Your task to perform on an android device: Open internet settings Image 0: 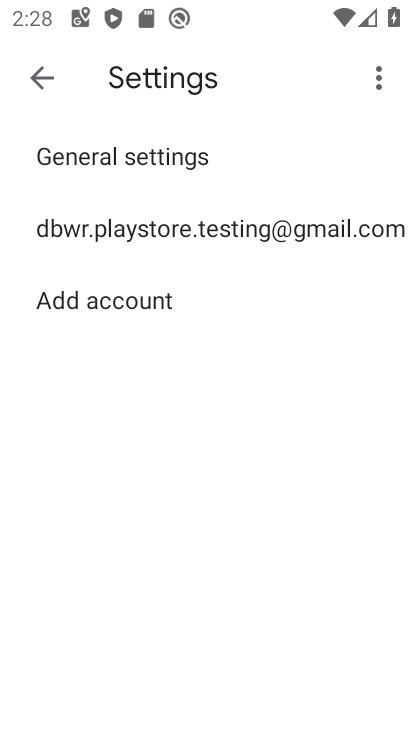
Step 0: click (100, 204)
Your task to perform on an android device: Open internet settings Image 1: 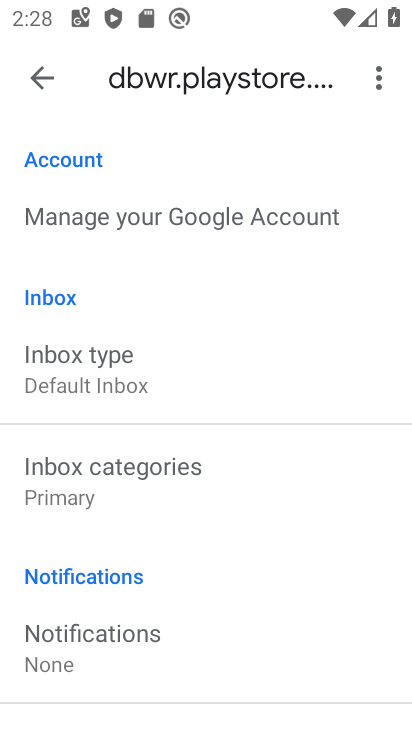
Step 1: press home button
Your task to perform on an android device: Open internet settings Image 2: 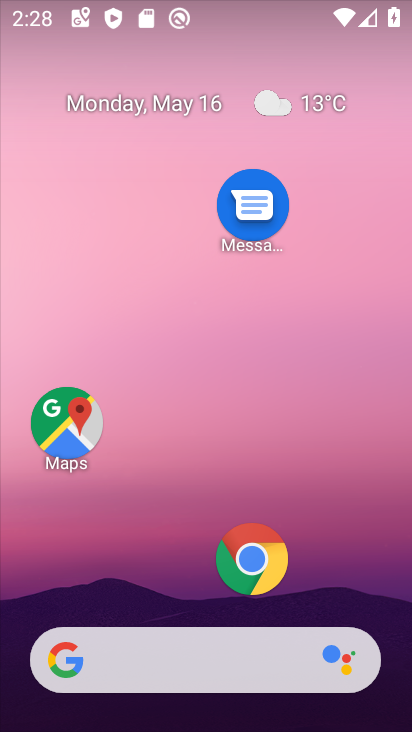
Step 2: drag from (137, 564) to (165, 150)
Your task to perform on an android device: Open internet settings Image 3: 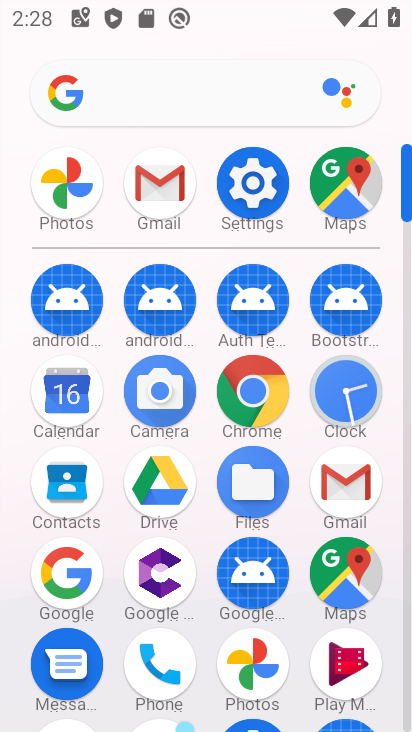
Step 3: click (250, 183)
Your task to perform on an android device: Open internet settings Image 4: 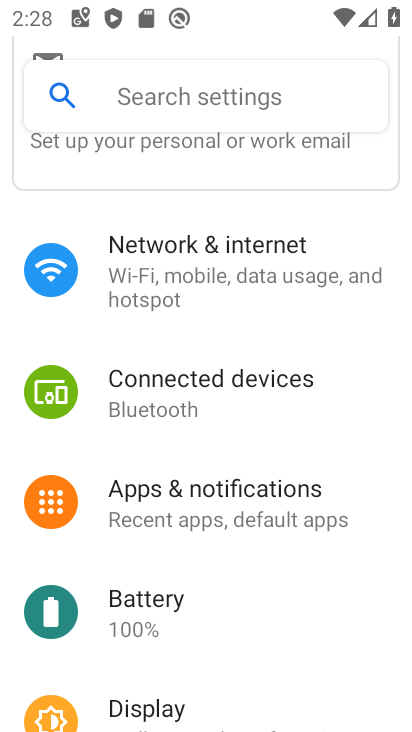
Step 4: click (246, 265)
Your task to perform on an android device: Open internet settings Image 5: 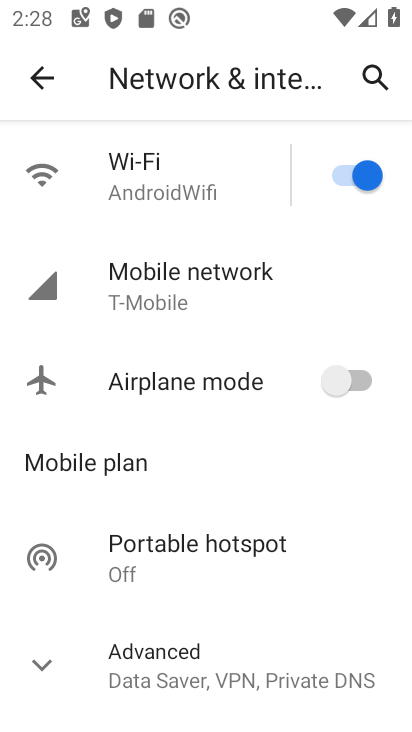
Step 5: task complete